Your task to perform on an android device: check data usage Image 0: 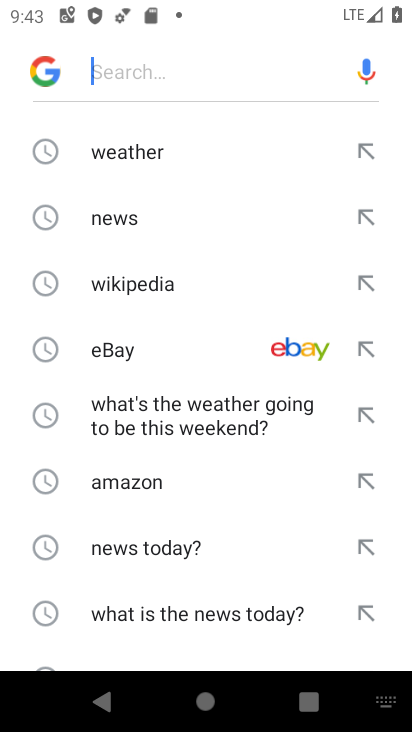
Step 0: press home button
Your task to perform on an android device: check data usage Image 1: 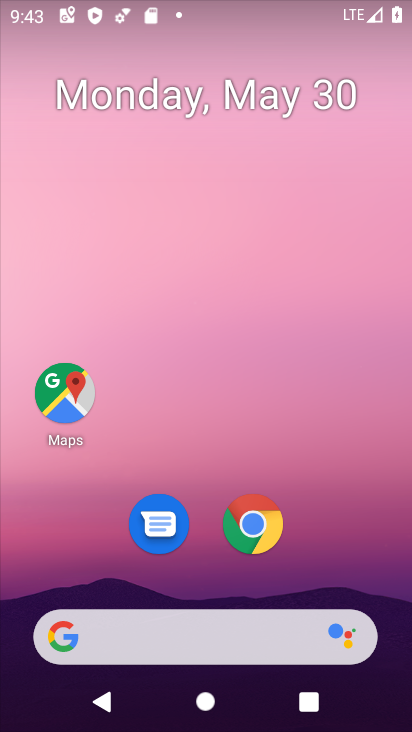
Step 1: click (230, 633)
Your task to perform on an android device: check data usage Image 2: 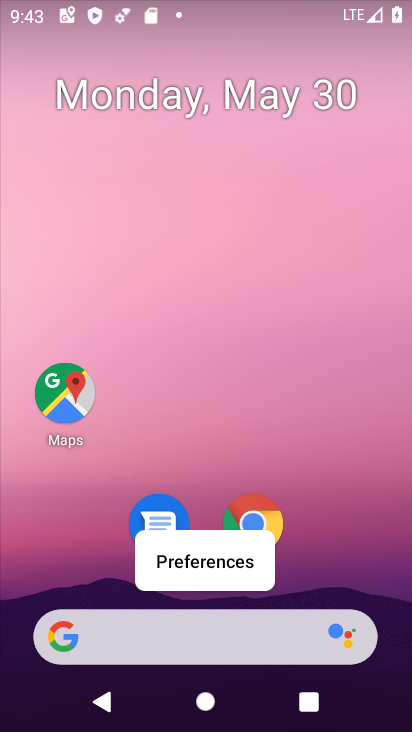
Step 2: click (362, 481)
Your task to perform on an android device: check data usage Image 3: 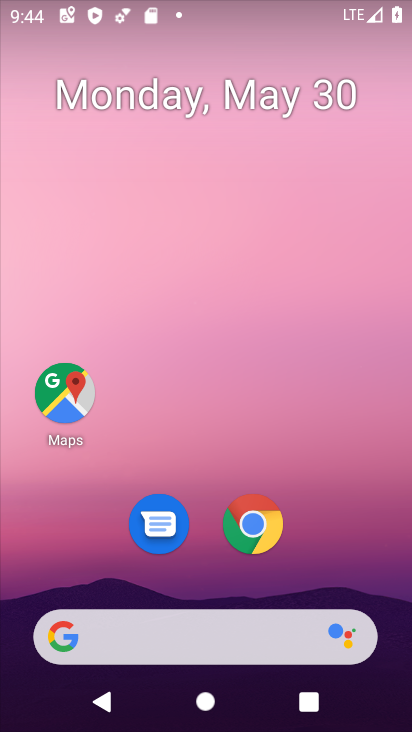
Step 3: drag from (341, 572) to (299, 34)
Your task to perform on an android device: check data usage Image 4: 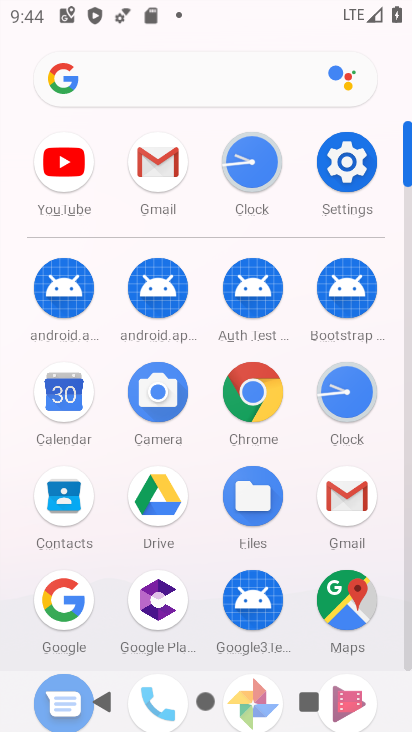
Step 4: click (342, 142)
Your task to perform on an android device: check data usage Image 5: 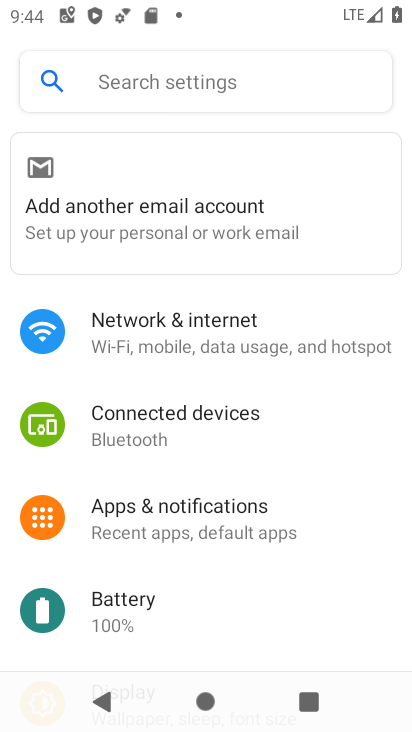
Step 5: click (208, 332)
Your task to perform on an android device: check data usage Image 6: 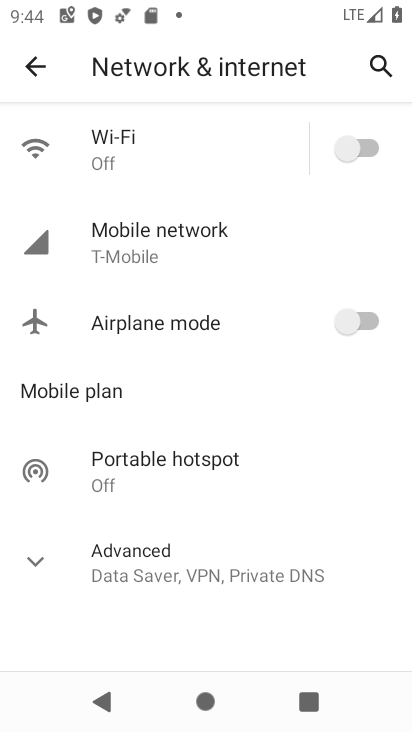
Step 6: click (232, 229)
Your task to perform on an android device: check data usage Image 7: 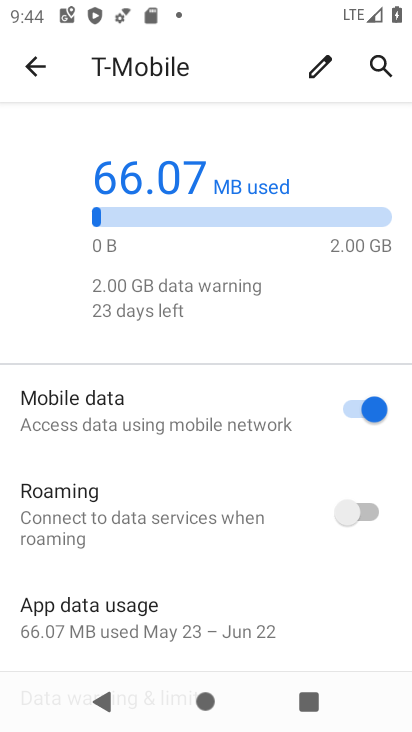
Step 7: task complete